Your task to perform on an android device: toggle notifications settings in the gmail app Image 0: 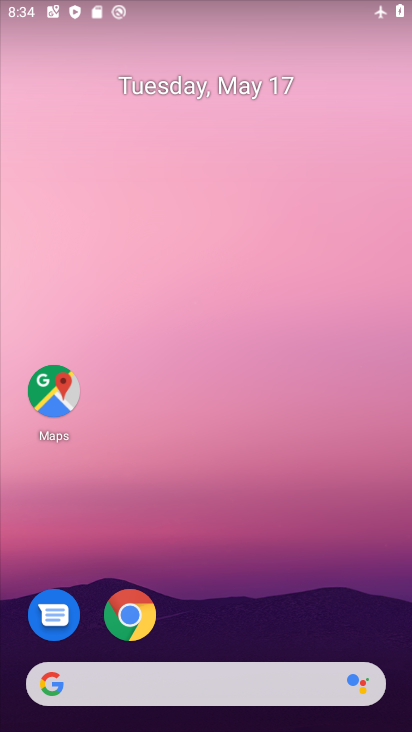
Step 0: drag from (242, 615) to (243, 267)
Your task to perform on an android device: toggle notifications settings in the gmail app Image 1: 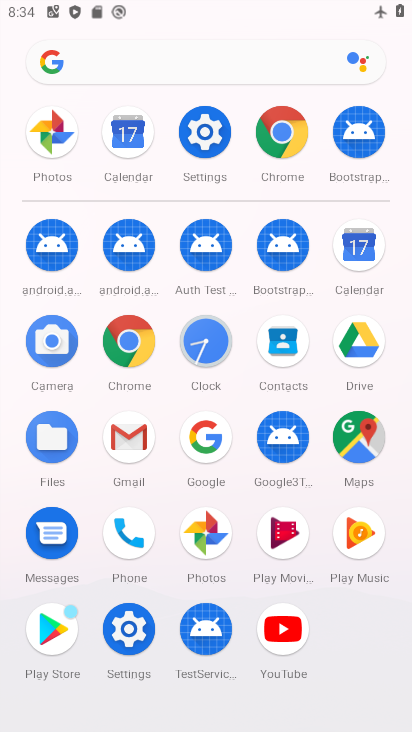
Step 1: click (130, 437)
Your task to perform on an android device: toggle notifications settings in the gmail app Image 2: 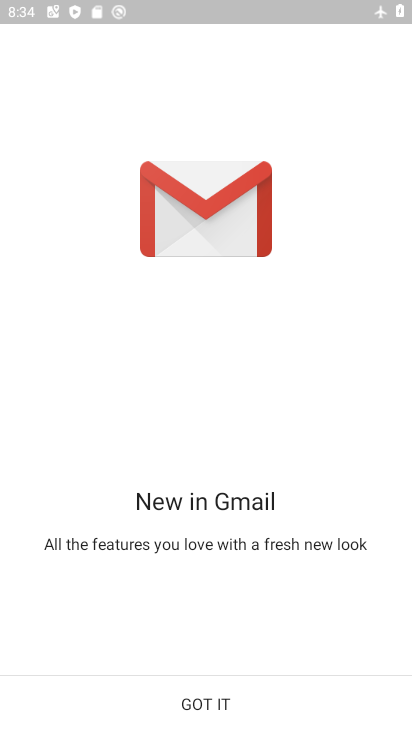
Step 2: click (194, 692)
Your task to perform on an android device: toggle notifications settings in the gmail app Image 3: 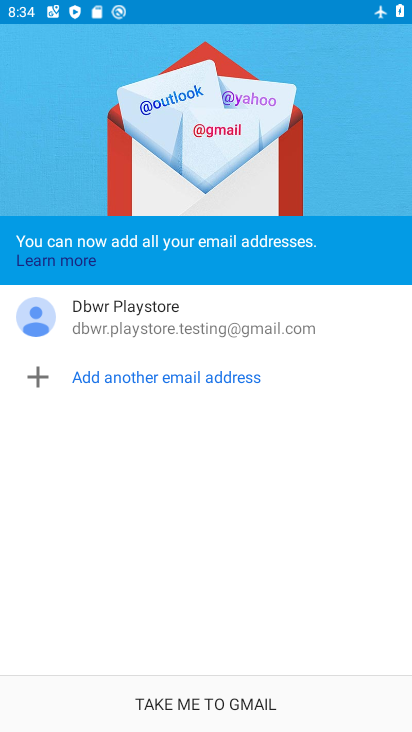
Step 3: click (194, 692)
Your task to perform on an android device: toggle notifications settings in the gmail app Image 4: 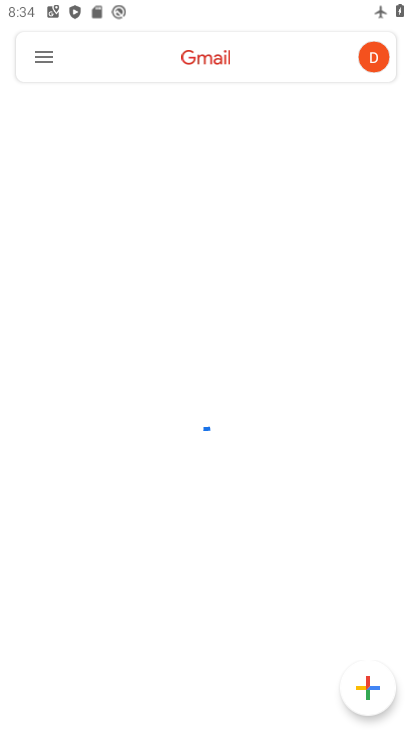
Step 4: click (46, 60)
Your task to perform on an android device: toggle notifications settings in the gmail app Image 5: 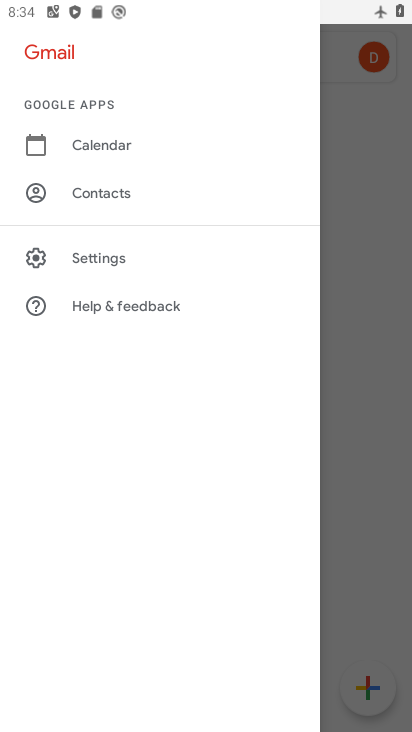
Step 5: click (135, 248)
Your task to perform on an android device: toggle notifications settings in the gmail app Image 6: 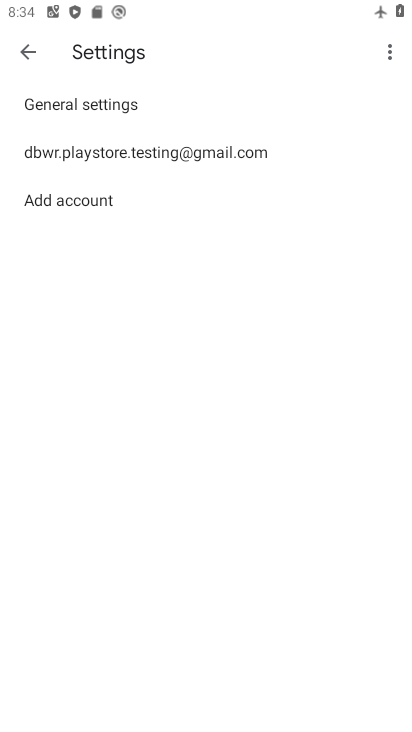
Step 6: click (116, 142)
Your task to perform on an android device: toggle notifications settings in the gmail app Image 7: 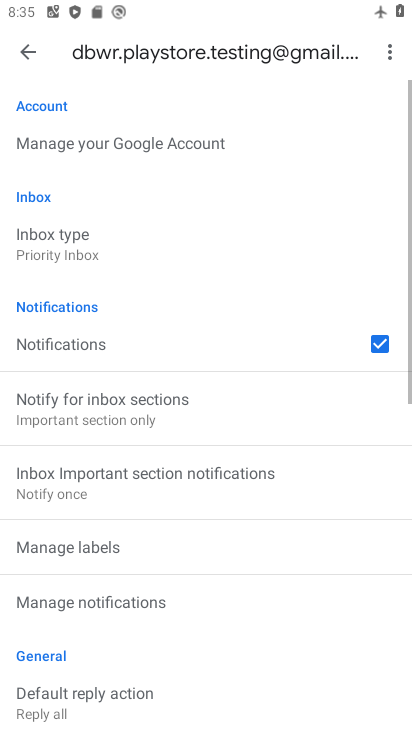
Step 7: drag from (147, 630) to (153, 561)
Your task to perform on an android device: toggle notifications settings in the gmail app Image 8: 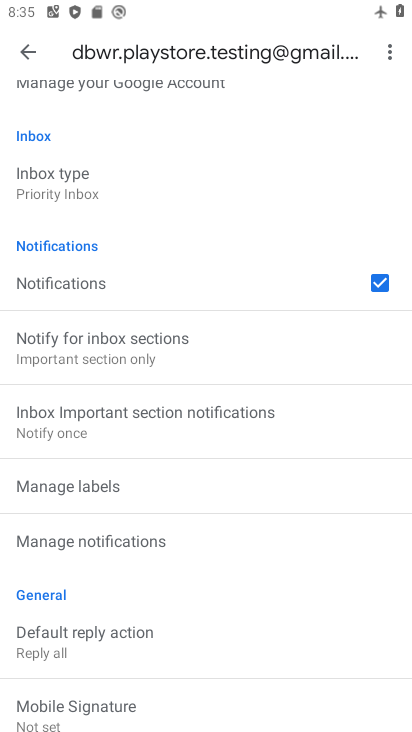
Step 8: click (90, 284)
Your task to perform on an android device: toggle notifications settings in the gmail app Image 9: 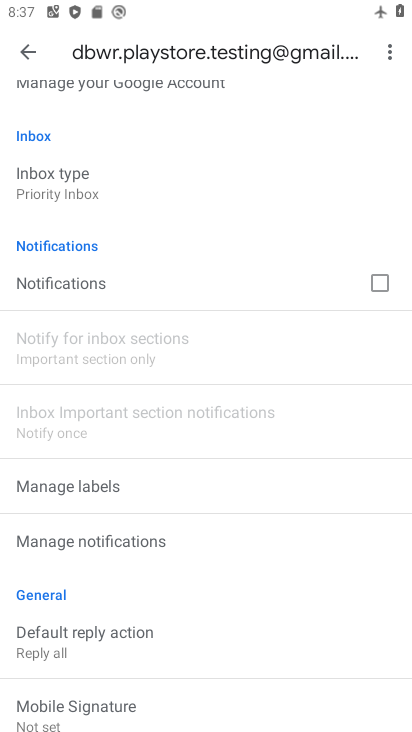
Step 9: task complete